Your task to perform on an android device: turn on the 24-hour format for clock Image 0: 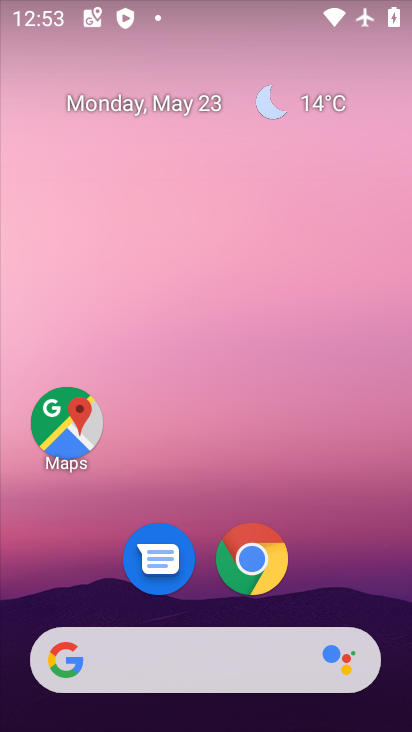
Step 0: drag from (345, 614) to (318, 6)
Your task to perform on an android device: turn on the 24-hour format for clock Image 1: 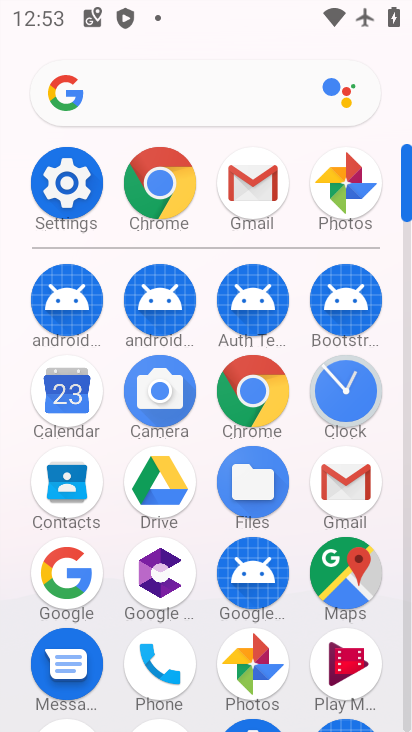
Step 1: click (350, 392)
Your task to perform on an android device: turn on the 24-hour format for clock Image 2: 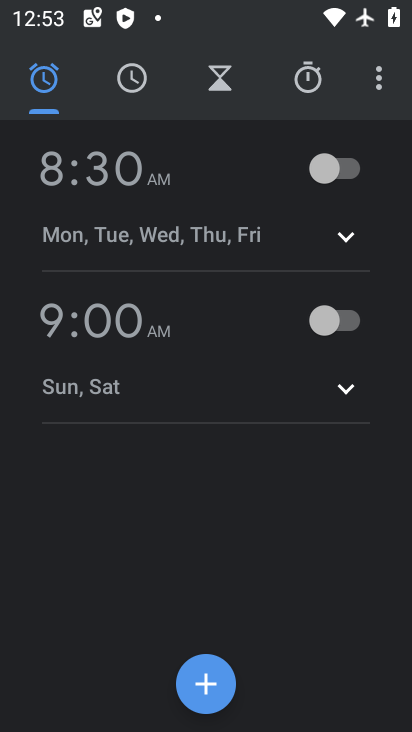
Step 2: click (377, 82)
Your task to perform on an android device: turn on the 24-hour format for clock Image 3: 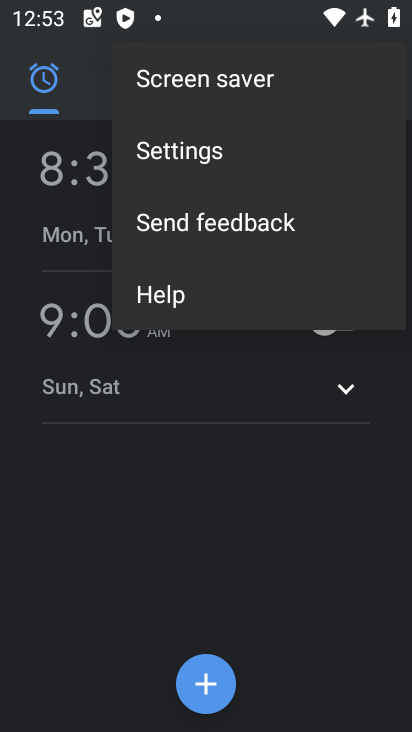
Step 3: click (158, 153)
Your task to perform on an android device: turn on the 24-hour format for clock Image 4: 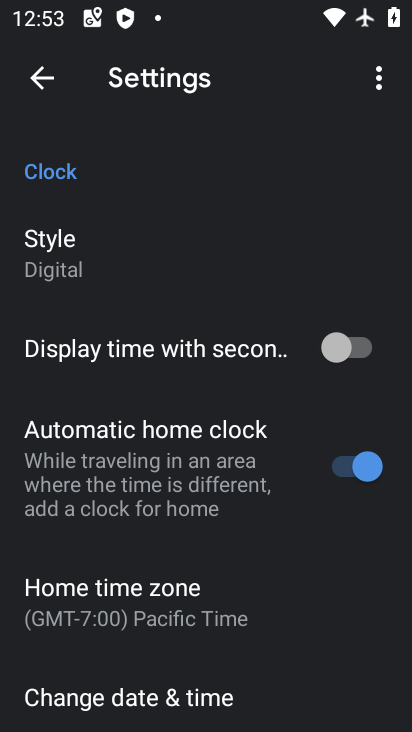
Step 4: drag from (227, 592) to (206, 226)
Your task to perform on an android device: turn on the 24-hour format for clock Image 5: 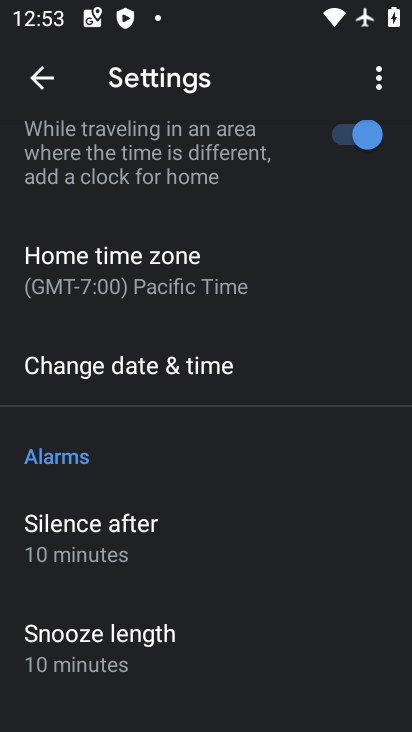
Step 5: click (133, 368)
Your task to perform on an android device: turn on the 24-hour format for clock Image 6: 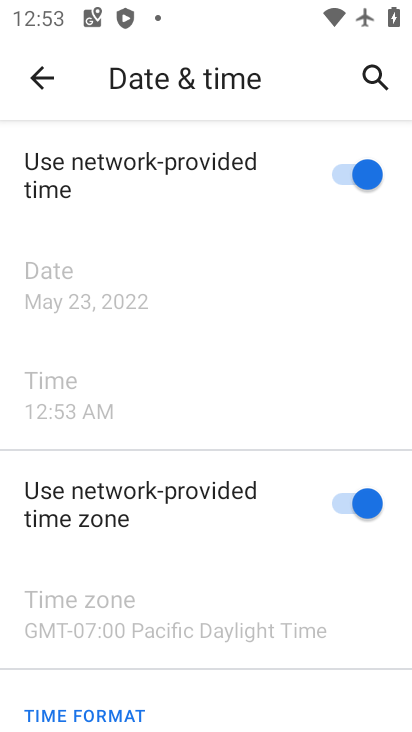
Step 6: drag from (165, 545) to (132, 135)
Your task to perform on an android device: turn on the 24-hour format for clock Image 7: 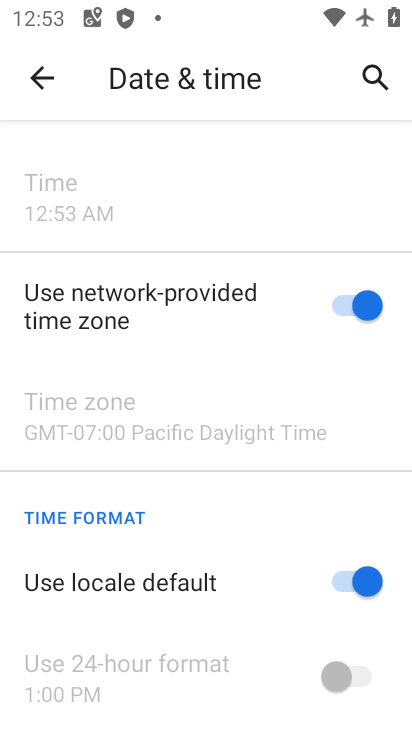
Step 7: click (350, 581)
Your task to perform on an android device: turn on the 24-hour format for clock Image 8: 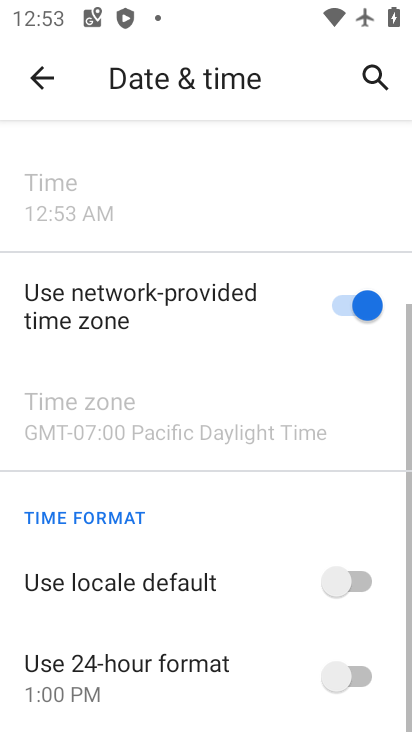
Step 8: click (338, 673)
Your task to perform on an android device: turn on the 24-hour format for clock Image 9: 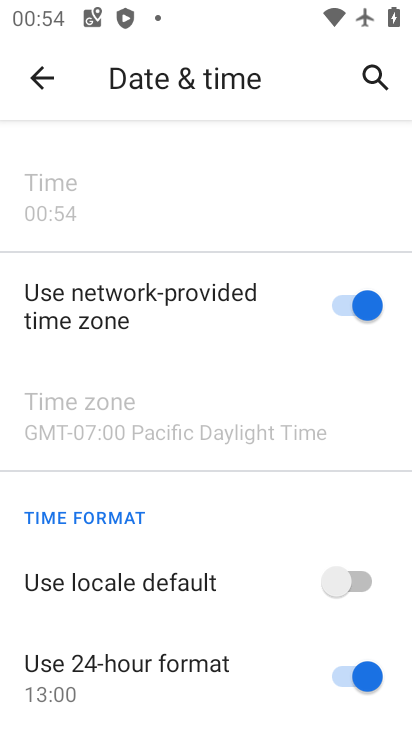
Step 9: task complete